Your task to perform on an android device: What is the news today? Image 0: 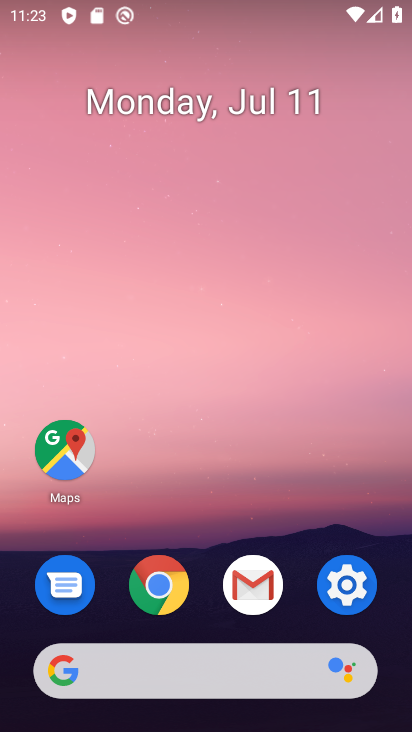
Step 0: drag from (283, 692) to (235, 252)
Your task to perform on an android device: What is the news today? Image 1: 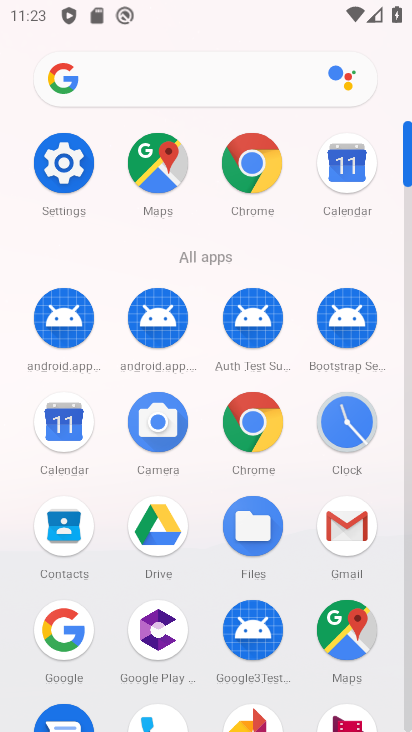
Step 1: click (169, 84)
Your task to perform on an android device: What is the news today? Image 2: 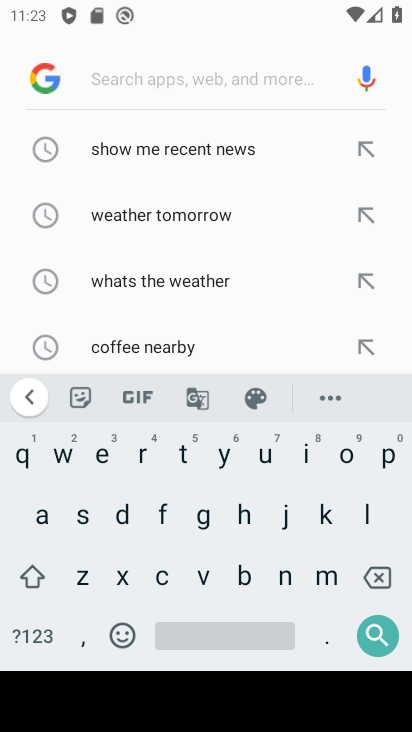
Step 2: click (278, 577)
Your task to perform on an android device: What is the news today? Image 3: 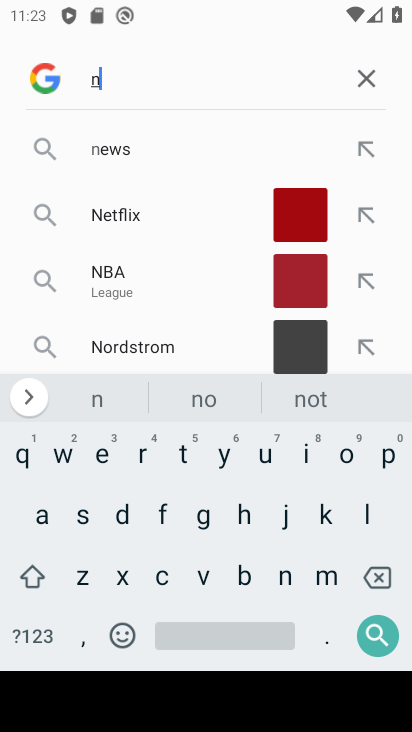
Step 3: click (97, 449)
Your task to perform on an android device: What is the news today? Image 4: 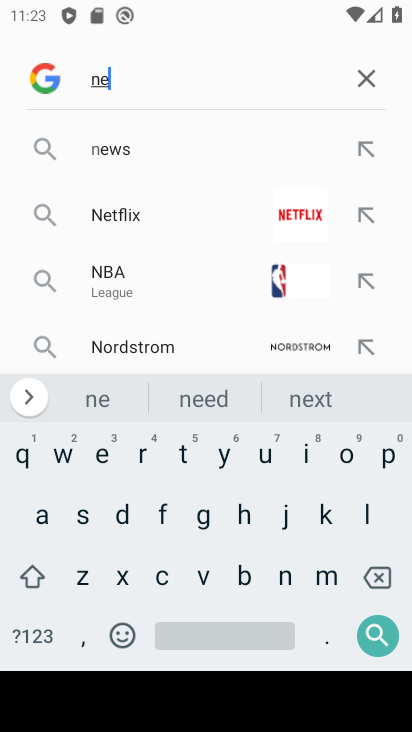
Step 4: click (60, 454)
Your task to perform on an android device: What is the news today? Image 5: 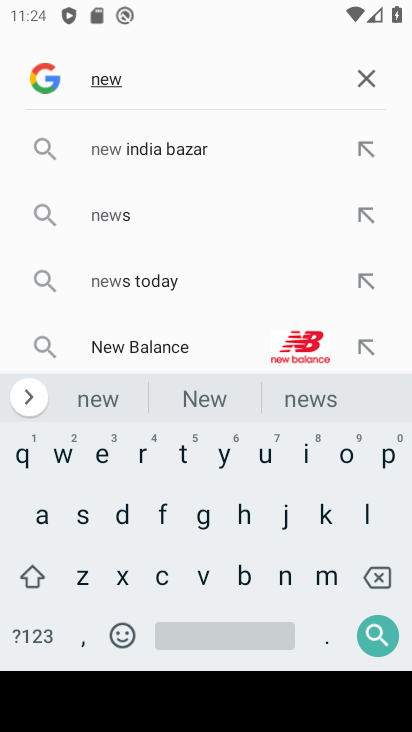
Step 5: click (154, 281)
Your task to perform on an android device: What is the news today? Image 6: 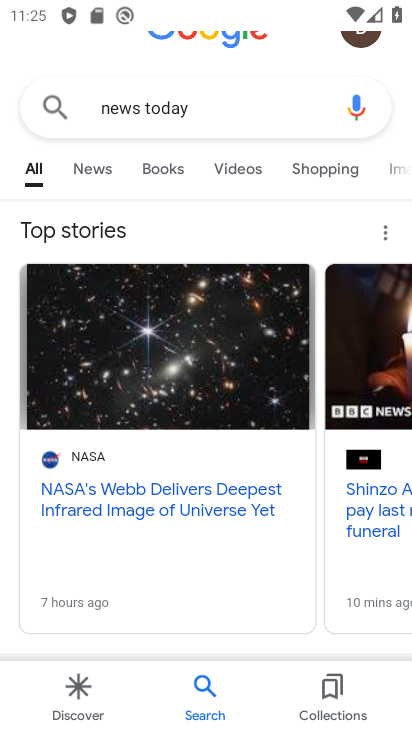
Step 6: task complete